Your task to perform on an android device: Open maps Image 0: 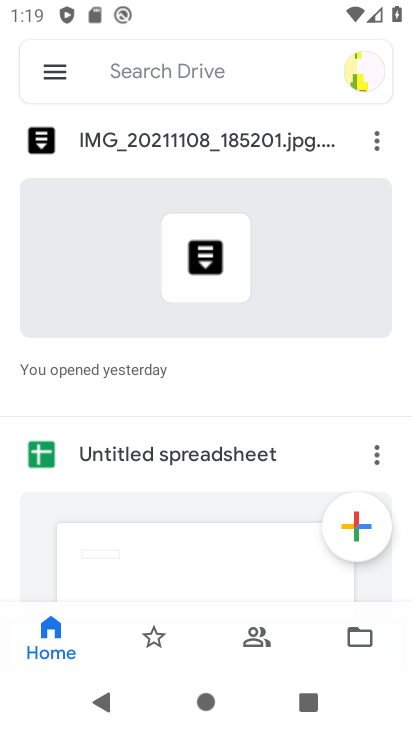
Step 0: press home button
Your task to perform on an android device: Open maps Image 1: 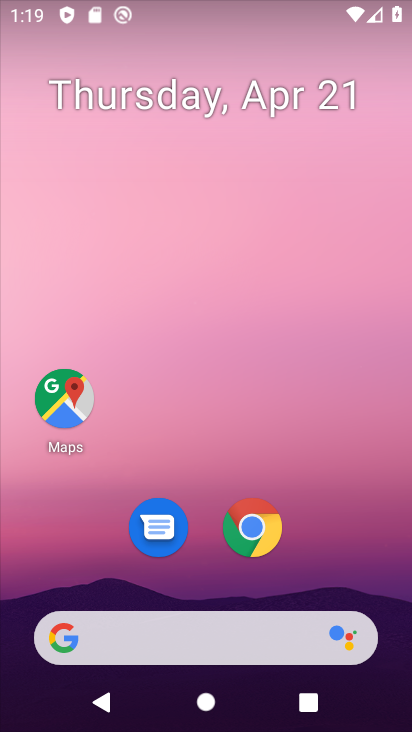
Step 1: drag from (352, 563) to (363, 164)
Your task to perform on an android device: Open maps Image 2: 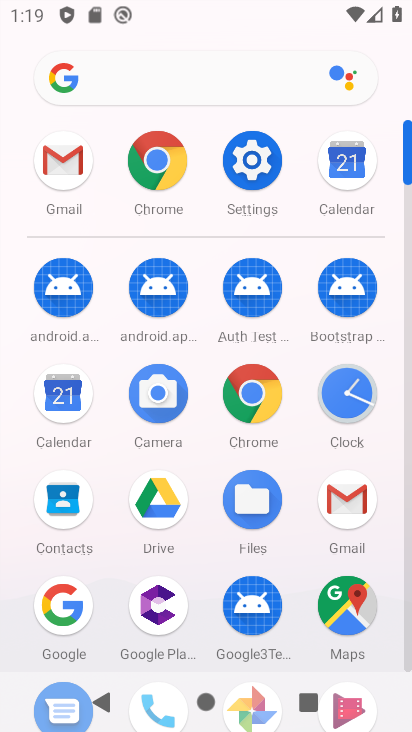
Step 2: click (354, 619)
Your task to perform on an android device: Open maps Image 3: 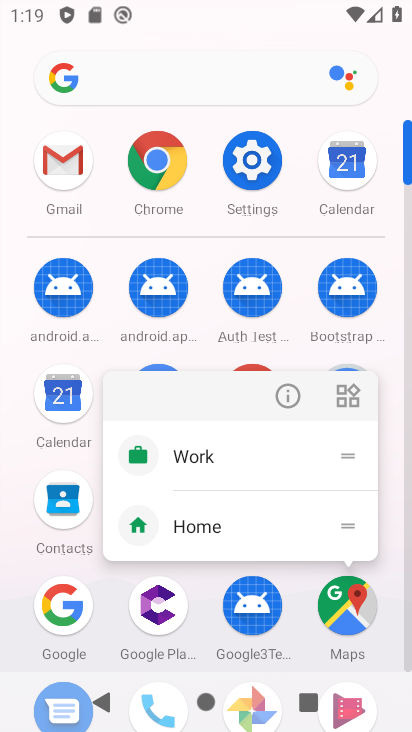
Step 3: click (354, 619)
Your task to perform on an android device: Open maps Image 4: 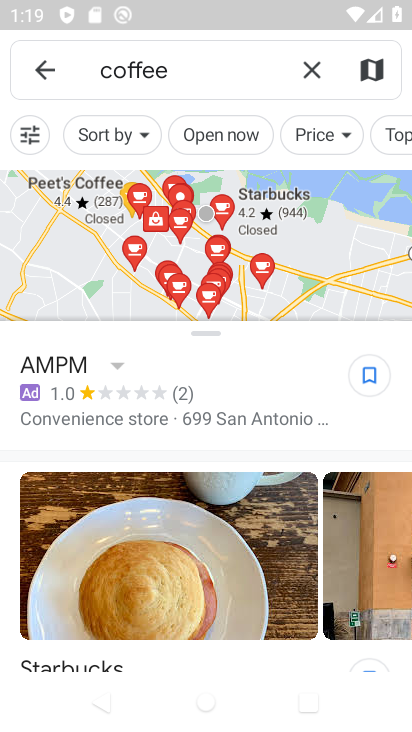
Step 4: task complete